Your task to perform on an android device: snooze an email in the gmail app Image 0: 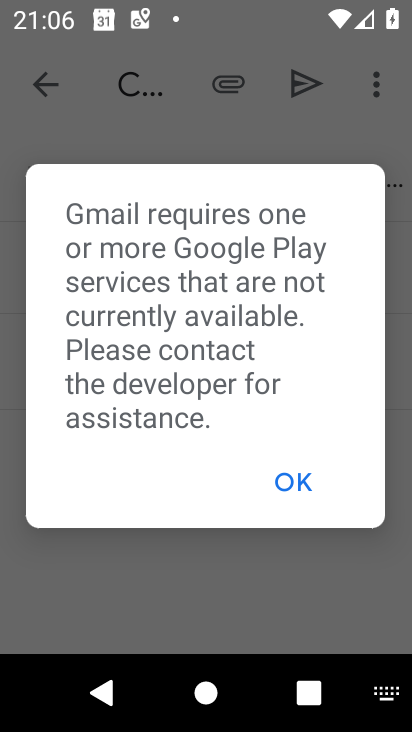
Step 0: press home button
Your task to perform on an android device: snooze an email in the gmail app Image 1: 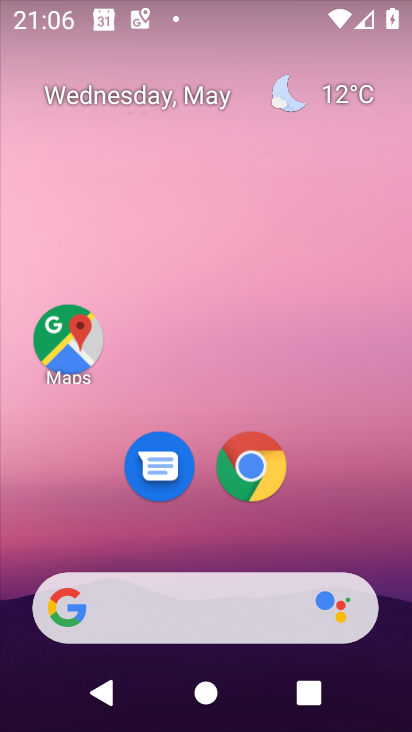
Step 1: drag from (197, 534) to (249, 62)
Your task to perform on an android device: snooze an email in the gmail app Image 2: 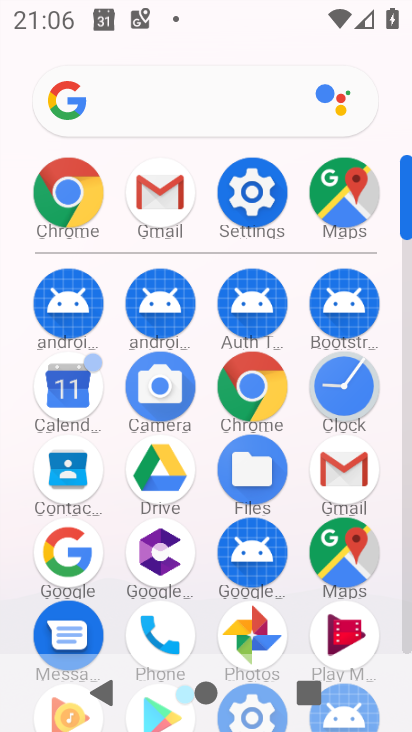
Step 2: click (162, 192)
Your task to perform on an android device: snooze an email in the gmail app Image 3: 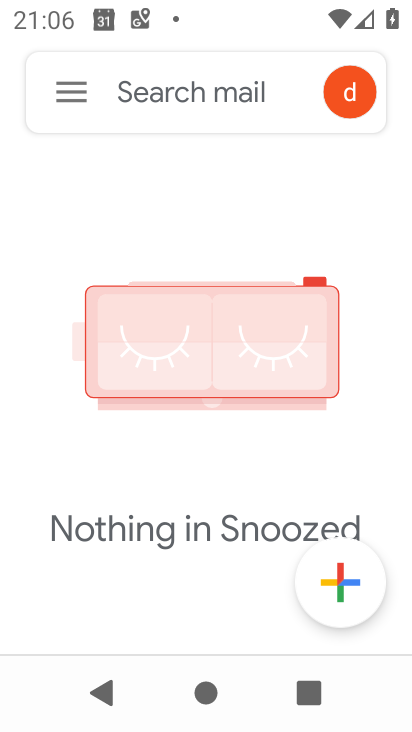
Step 3: click (74, 90)
Your task to perform on an android device: snooze an email in the gmail app Image 4: 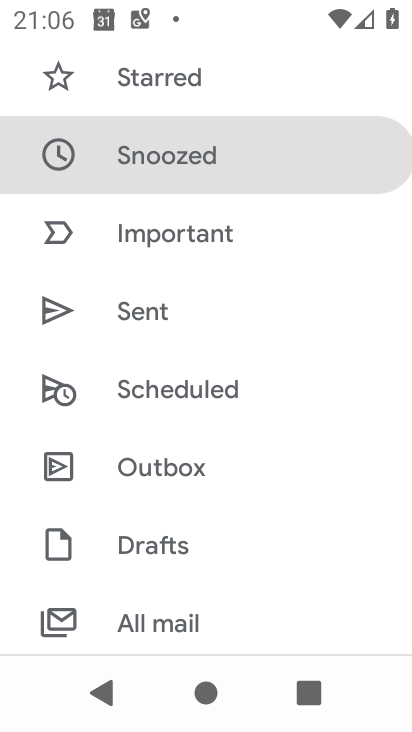
Step 4: click (169, 600)
Your task to perform on an android device: snooze an email in the gmail app Image 5: 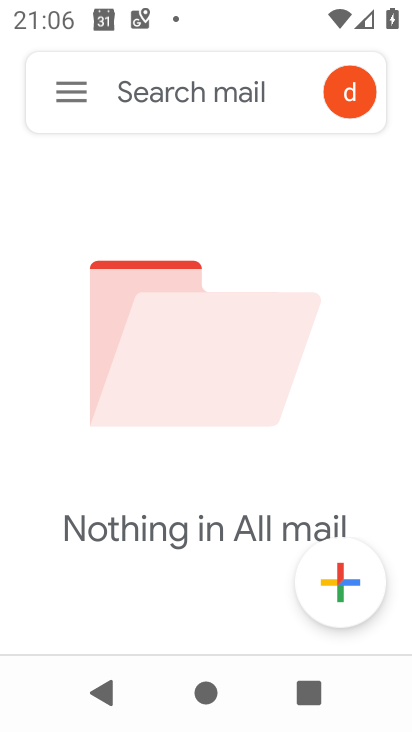
Step 5: task complete